Your task to perform on an android device: clear history in the chrome app Image 0: 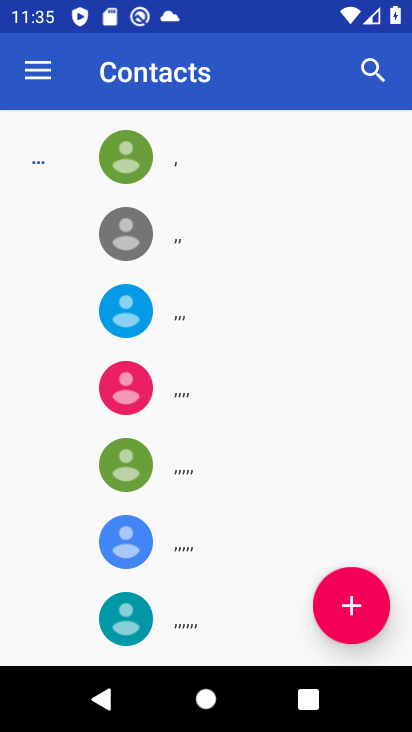
Step 0: press home button
Your task to perform on an android device: clear history in the chrome app Image 1: 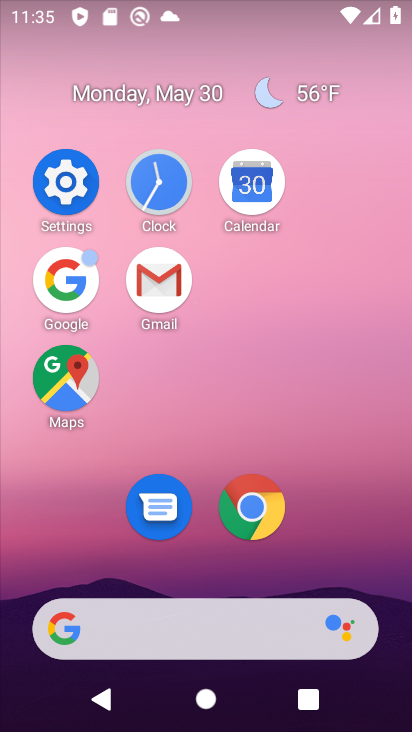
Step 1: click (244, 502)
Your task to perform on an android device: clear history in the chrome app Image 2: 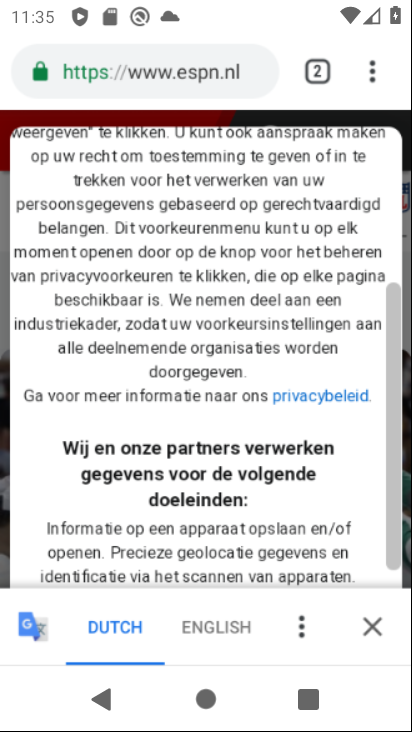
Step 2: click (382, 67)
Your task to perform on an android device: clear history in the chrome app Image 3: 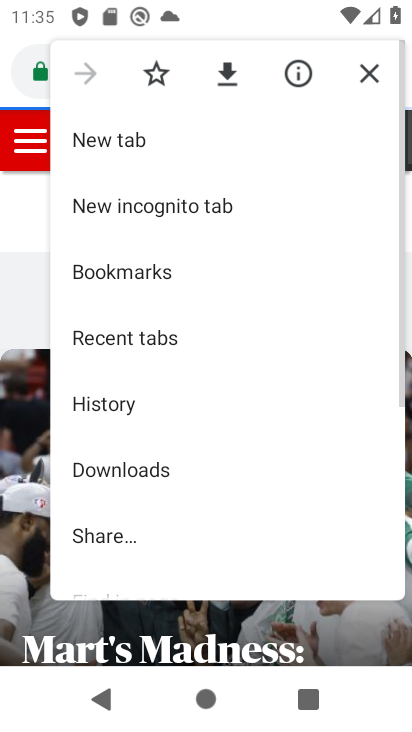
Step 3: click (379, 80)
Your task to perform on an android device: clear history in the chrome app Image 4: 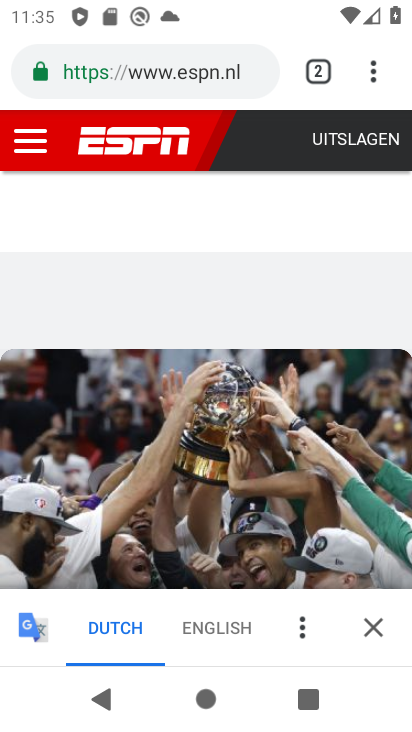
Step 4: click (386, 67)
Your task to perform on an android device: clear history in the chrome app Image 5: 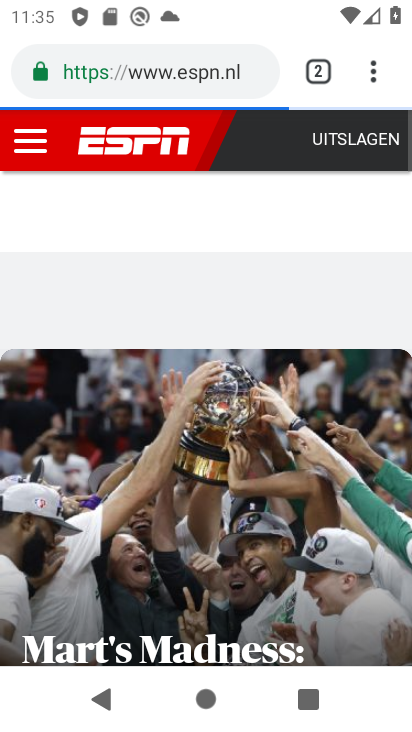
Step 5: click (386, 54)
Your task to perform on an android device: clear history in the chrome app Image 6: 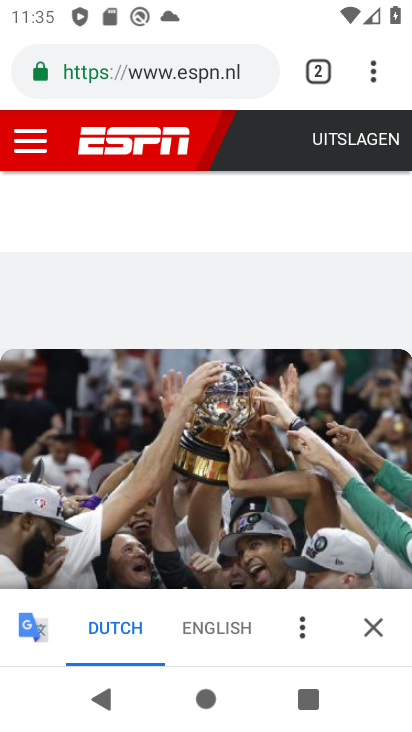
Step 6: click (378, 76)
Your task to perform on an android device: clear history in the chrome app Image 7: 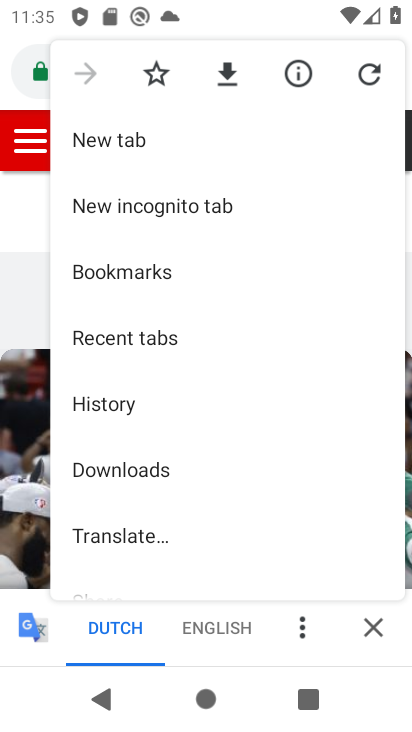
Step 7: click (146, 396)
Your task to perform on an android device: clear history in the chrome app Image 8: 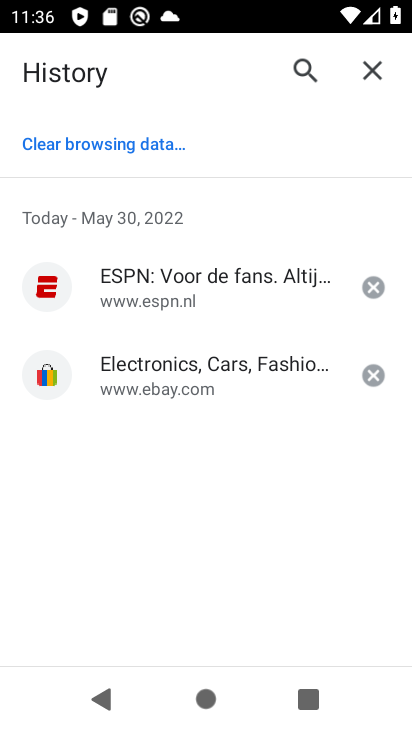
Step 8: click (105, 137)
Your task to perform on an android device: clear history in the chrome app Image 9: 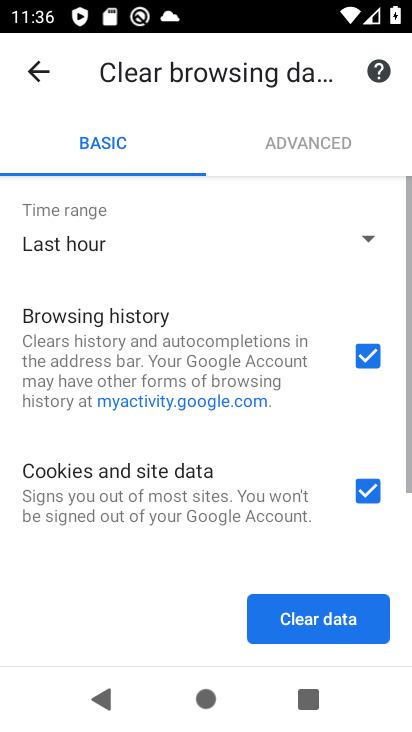
Step 9: click (342, 615)
Your task to perform on an android device: clear history in the chrome app Image 10: 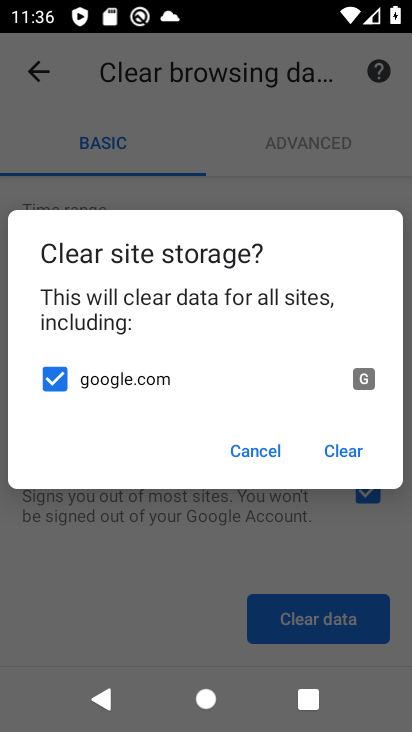
Step 10: click (347, 444)
Your task to perform on an android device: clear history in the chrome app Image 11: 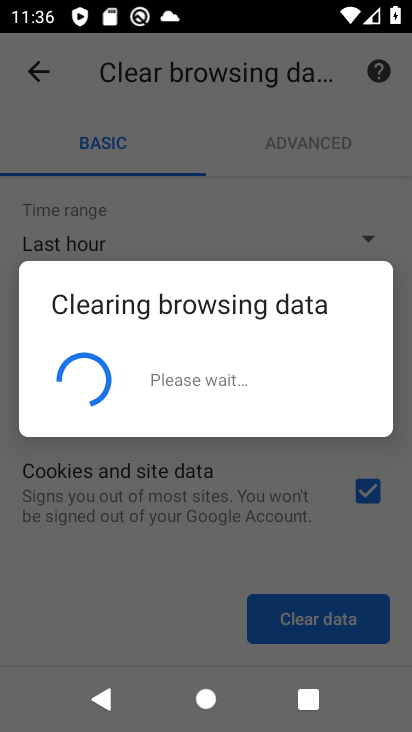
Step 11: task complete